Your task to perform on an android device: Search for seafood restaurants on Google Maps Image 0: 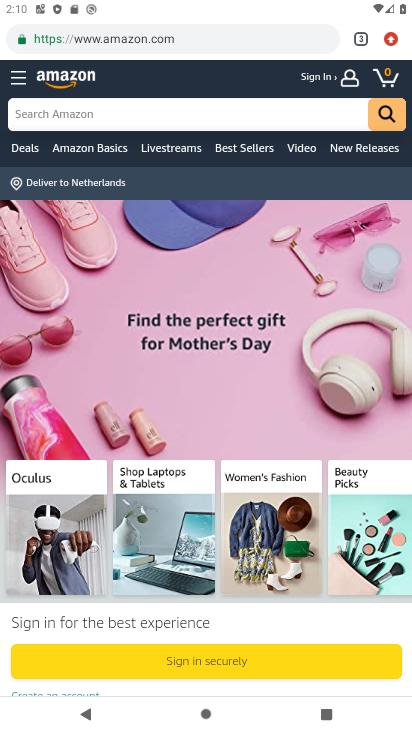
Step 0: press home button
Your task to perform on an android device: Search for seafood restaurants on Google Maps Image 1: 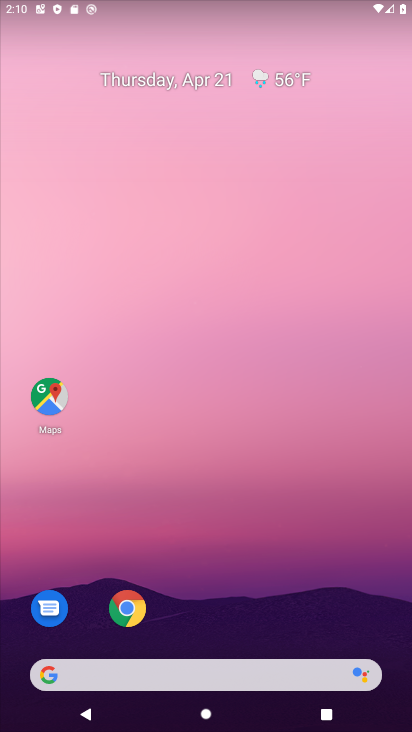
Step 1: click (52, 406)
Your task to perform on an android device: Search for seafood restaurants on Google Maps Image 2: 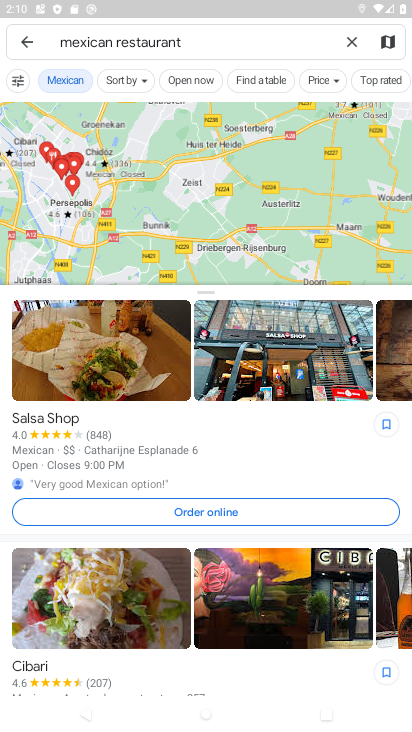
Step 2: click (354, 35)
Your task to perform on an android device: Search for seafood restaurants on Google Maps Image 3: 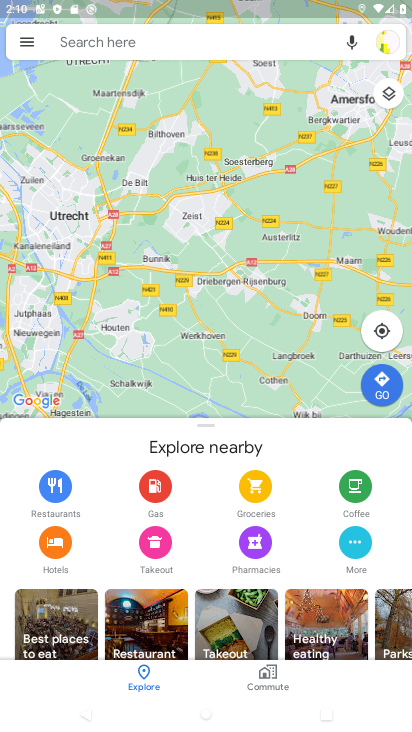
Step 3: click (246, 35)
Your task to perform on an android device: Search for seafood restaurants on Google Maps Image 4: 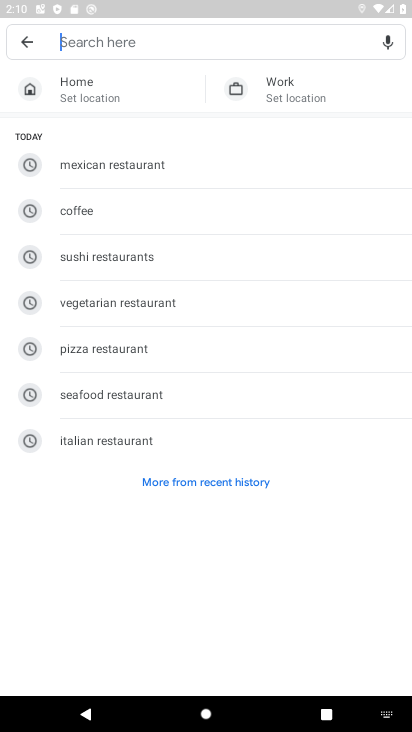
Step 4: click (112, 383)
Your task to perform on an android device: Search for seafood restaurants on Google Maps Image 5: 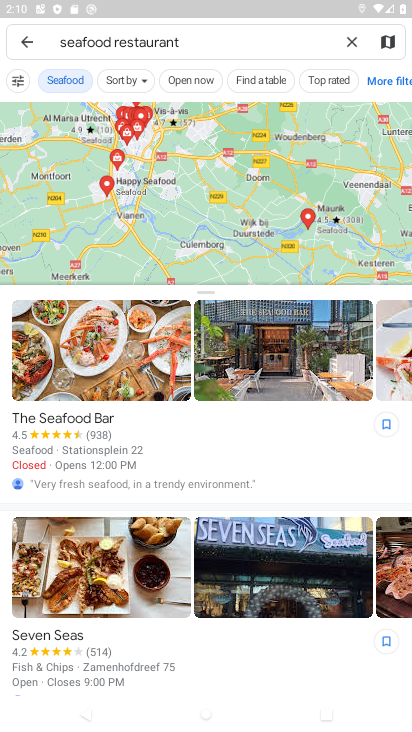
Step 5: task complete